Your task to perform on an android device: toggle pop-ups in chrome Image 0: 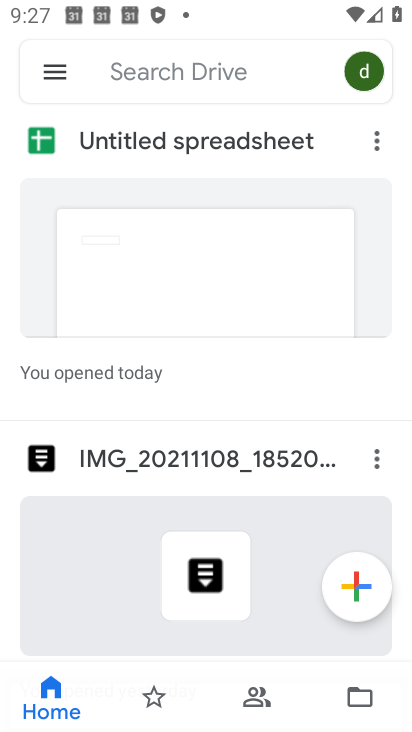
Step 0: press home button
Your task to perform on an android device: toggle pop-ups in chrome Image 1: 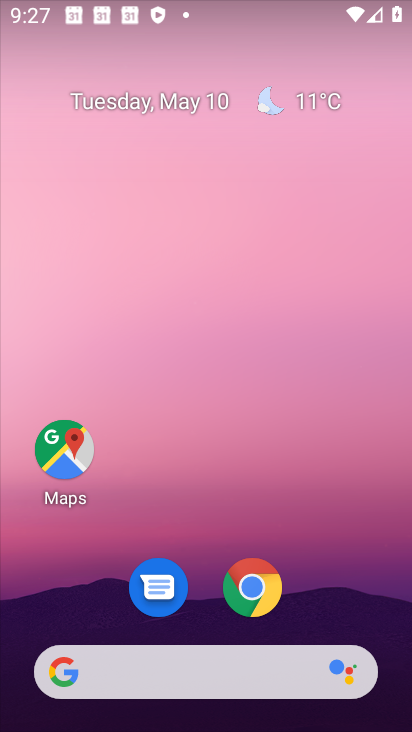
Step 1: drag from (328, 586) to (321, 210)
Your task to perform on an android device: toggle pop-ups in chrome Image 2: 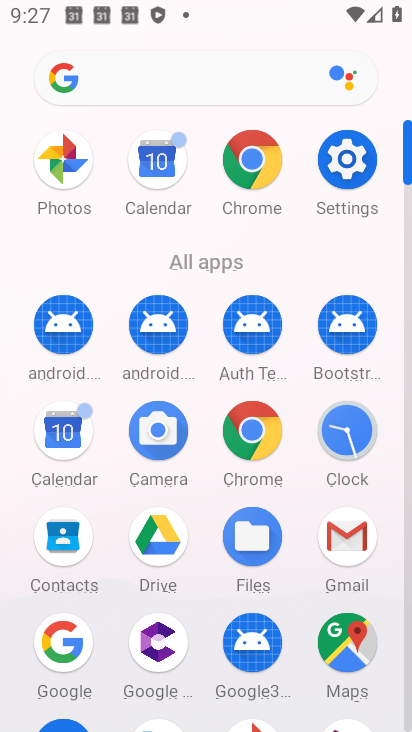
Step 2: click (273, 168)
Your task to perform on an android device: toggle pop-ups in chrome Image 3: 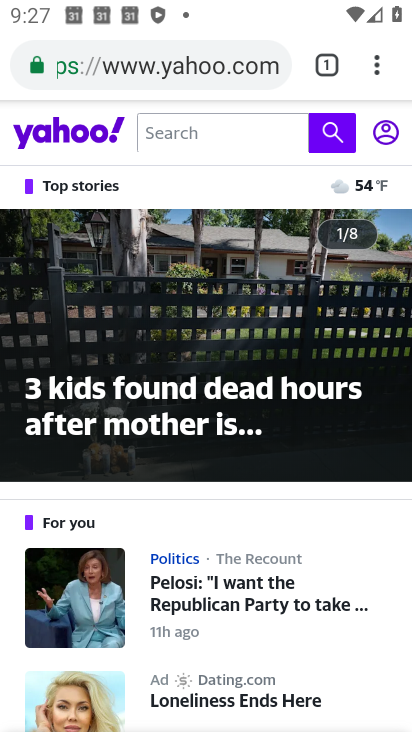
Step 3: drag from (375, 79) to (152, 623)
Your task to perform on an android device: toggle pop-ups in chrome Image 4: 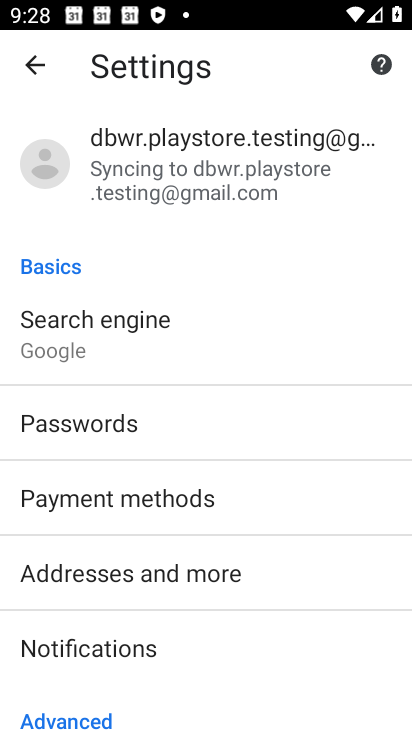
Step 4: drag from (234, 651) to (292, 319)
Your task to perform on an android device: toggle pop-ups in chrome Image 5: 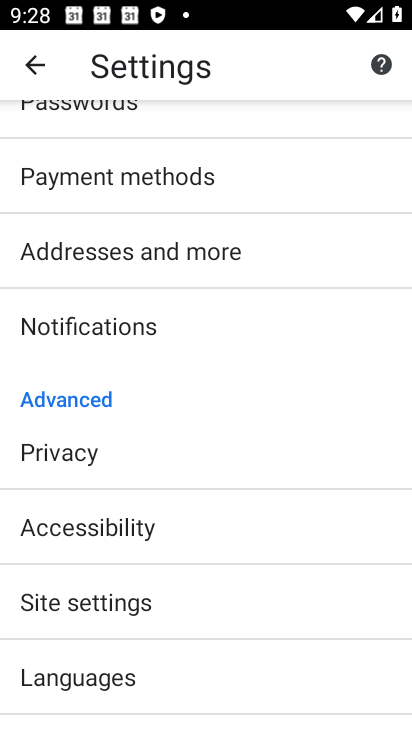
Step 5: click (196, 593)
Your task to perform on an android device: toggle pop-ups in chrome Image 6: 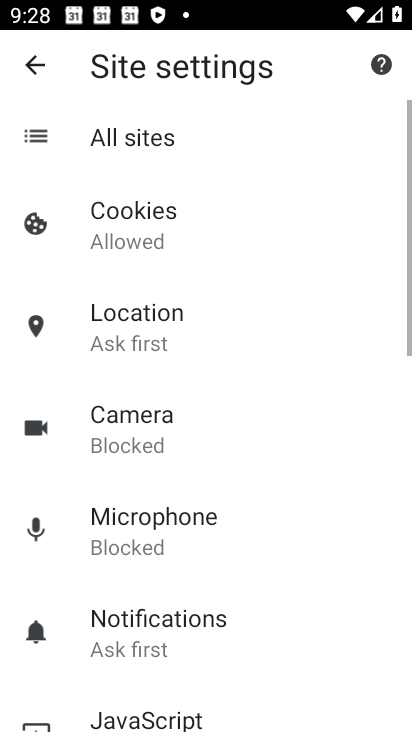
Step 6: drag from (239, 667) to (266, 318)
Your task to perform on an android device: toggle pop-ups in chrome Image 7: 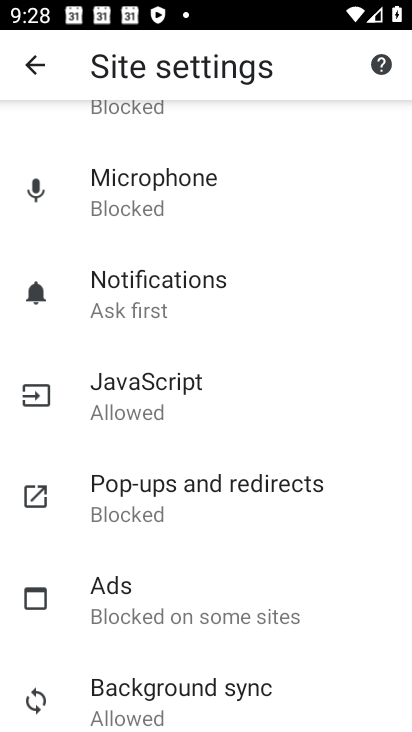
Step 7: click (256, 510)
Your task to perform on an android device: toggle pop-ups in chrome Image 8: 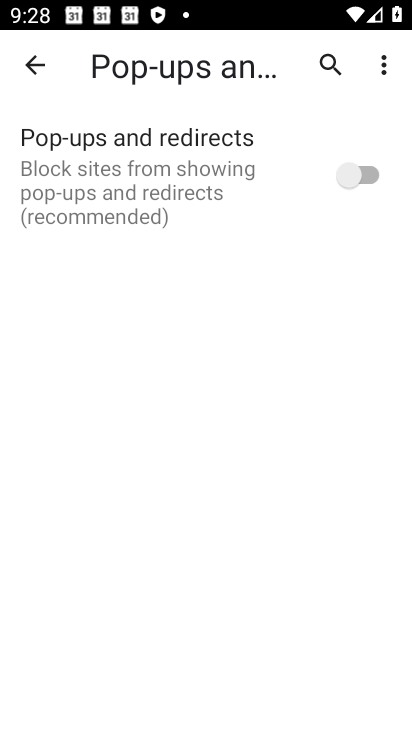
Step 8: click (377, 176)
Your task to perform on an android device: toggle pop-ups in chrome Image 9: 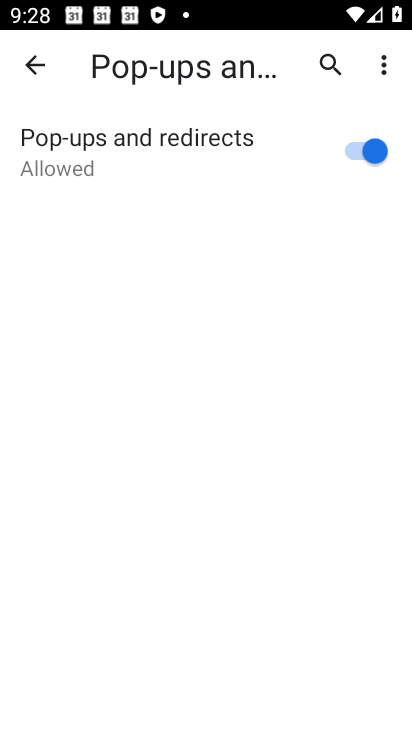
Step 9: task complete